Your task to perform on an android device: Open Amazon Image 0: 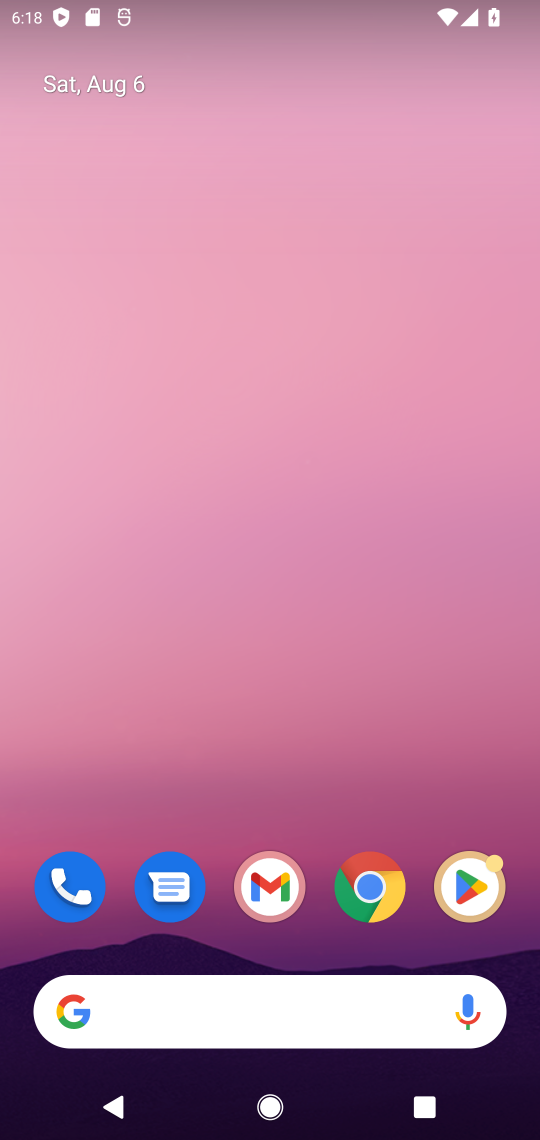
Step 0: click (181, 137)
Your task to perform on an android device: Open Amazon Image 1: 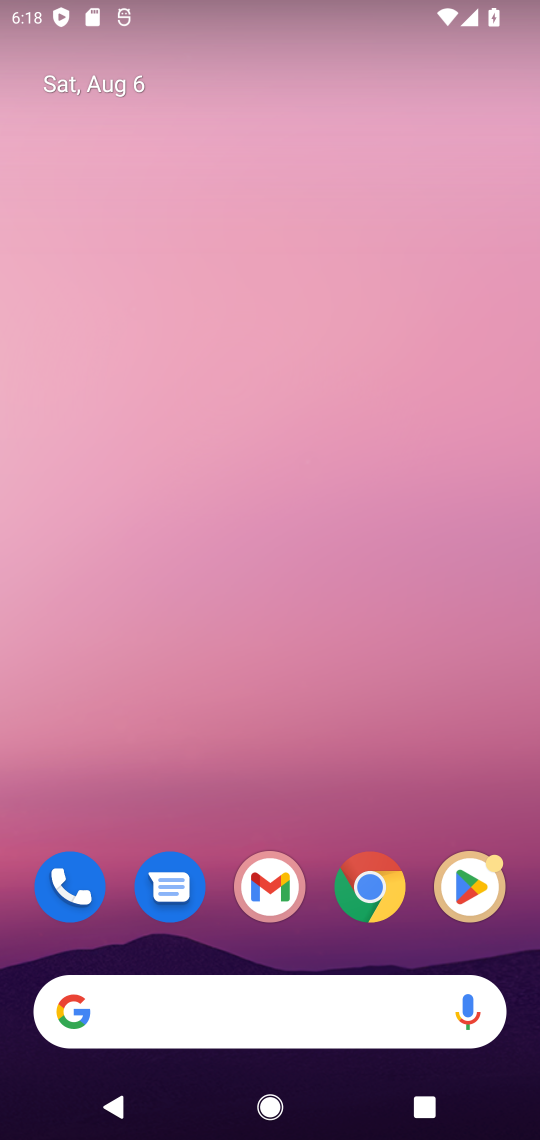
Step 1: click (188, 249)
Your task to perform on an android device: Open Amazon Image 2: 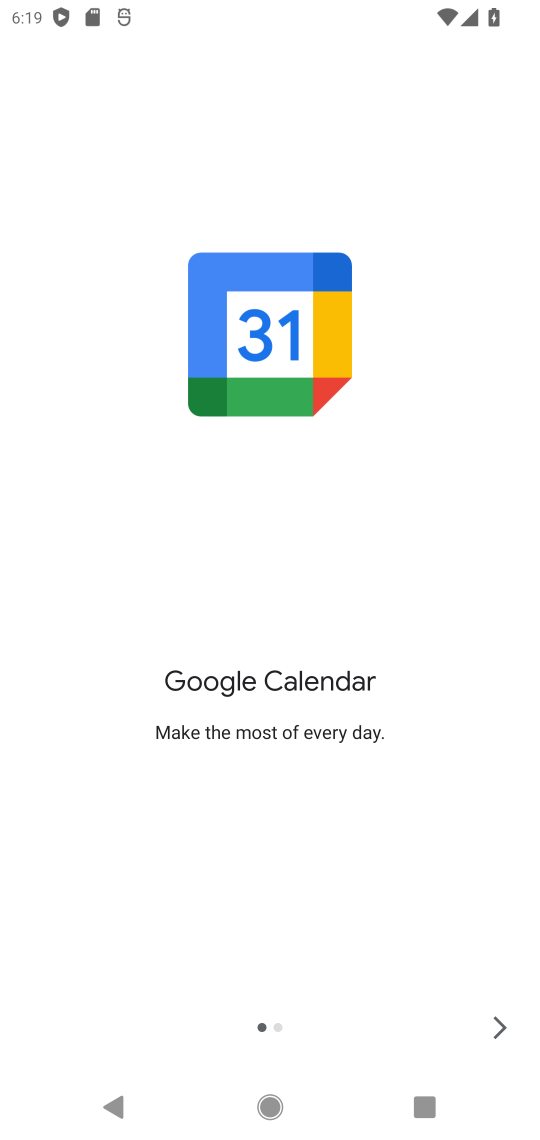
Step 2: press back button
Your task to perform on an android device: Open Amazon Image 3: 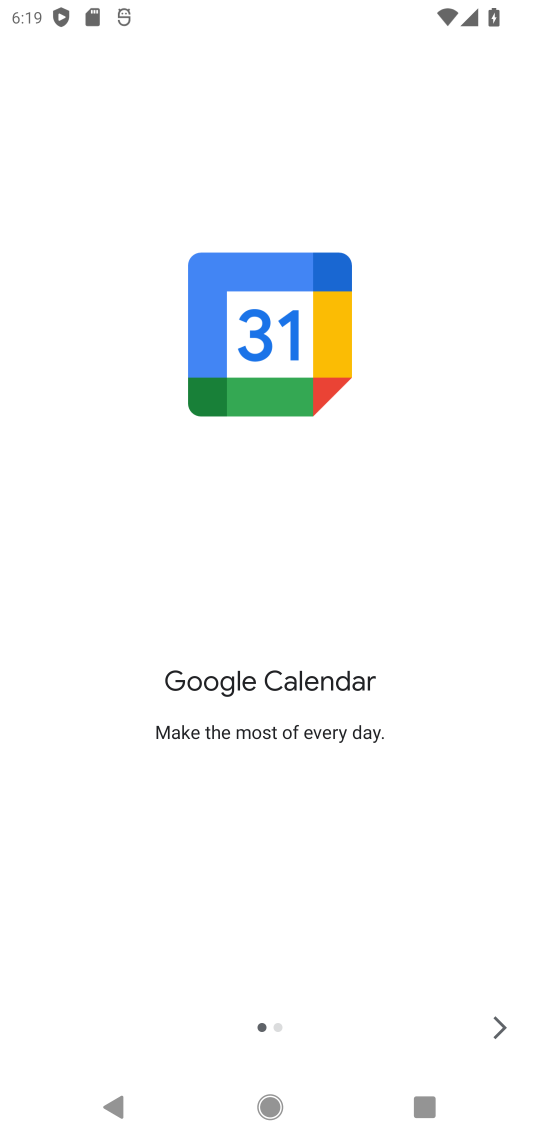
Step 3: press back button
Your task to perform on an android device: Open Amazon Image 4: 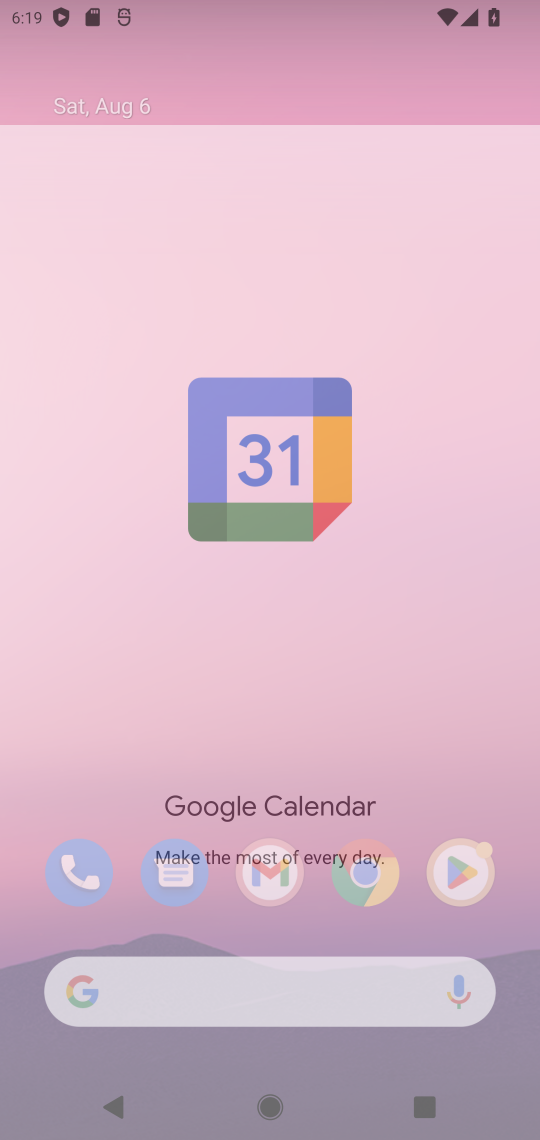
Step 4: press back button
Your task to perform on an android device: Open Amazon Image 5: 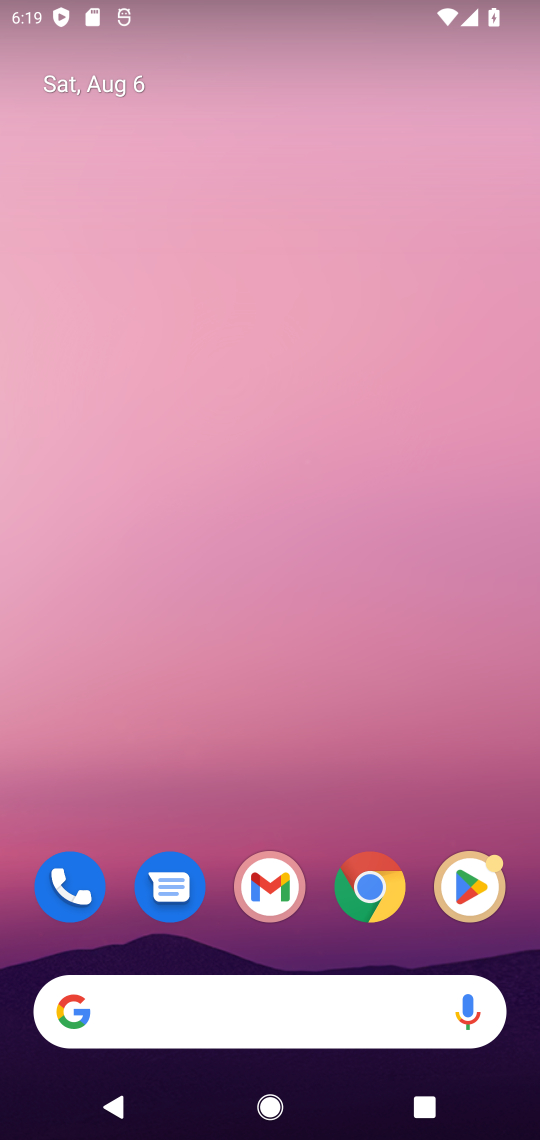
Step 5: drag from (388, 1086) to (274, 562)
Your task to perform on an android device: Open Amazon Image 6: 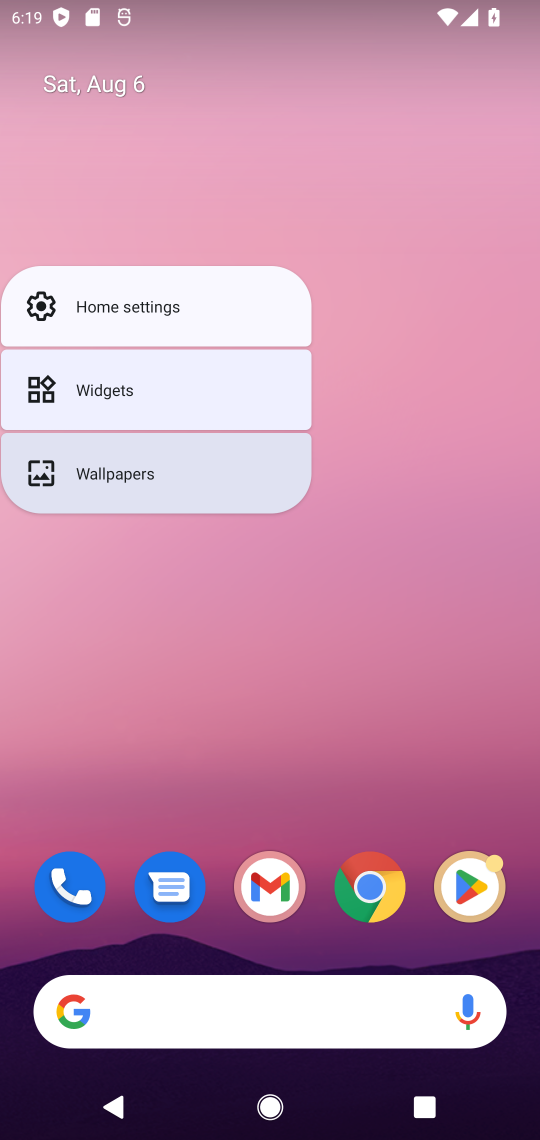
Step 6: click (340, 563)
Your task to perform on an android device: Open Amazon Image 7: 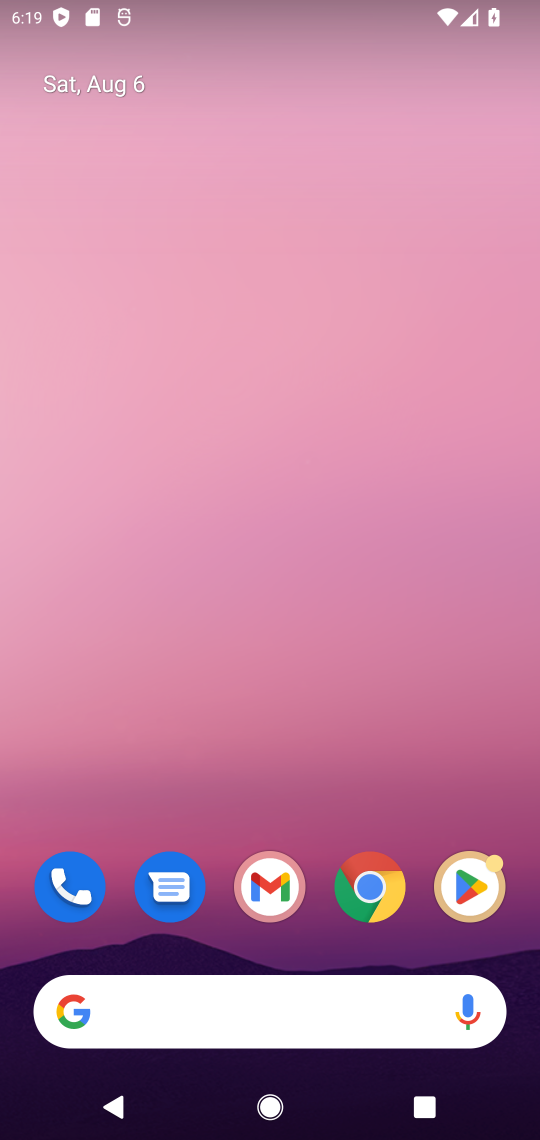
Step 7: drag from (217, 621) to (98, 232)
Your task to perform on an android device: Open Amazon Image 8: 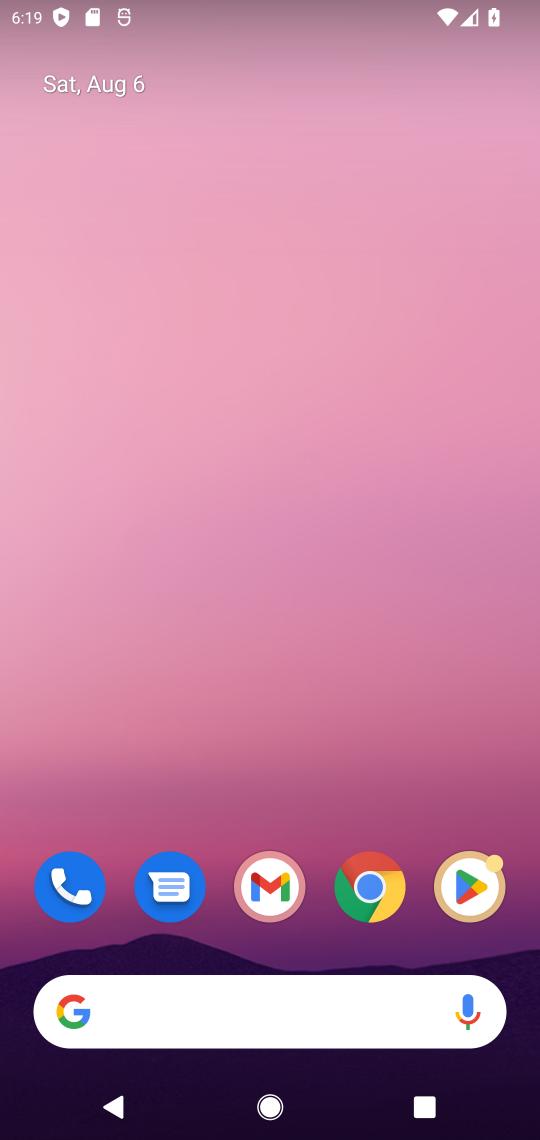
Step 8: drag from (269, 820) to (180, 567)
Your task to perform on an android device: Open Amazon Image 9: 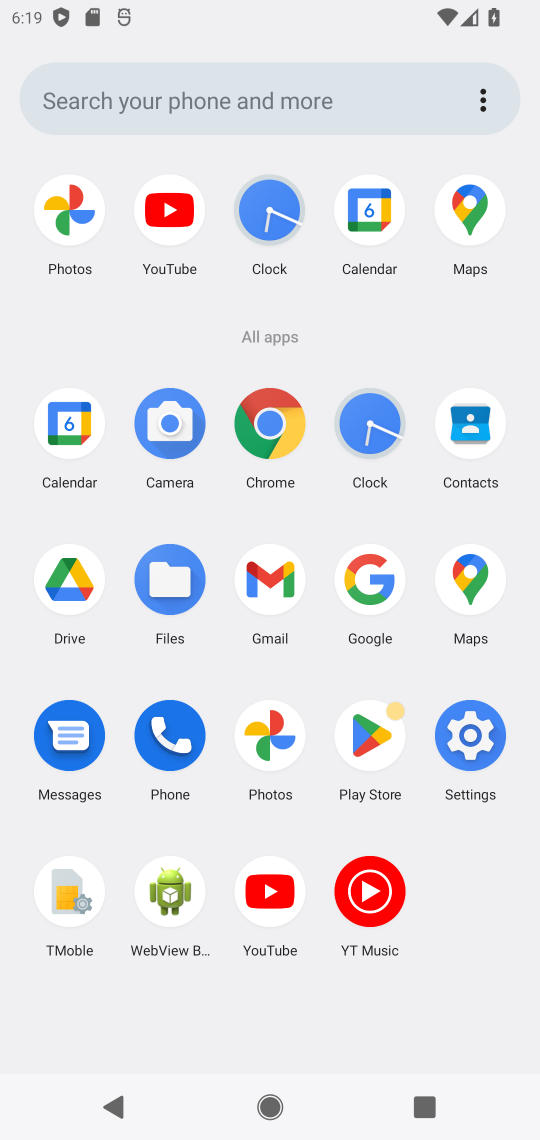
Step 9: click (261, 425)
Your task to perform on an android device: Open Amazon Image 10: 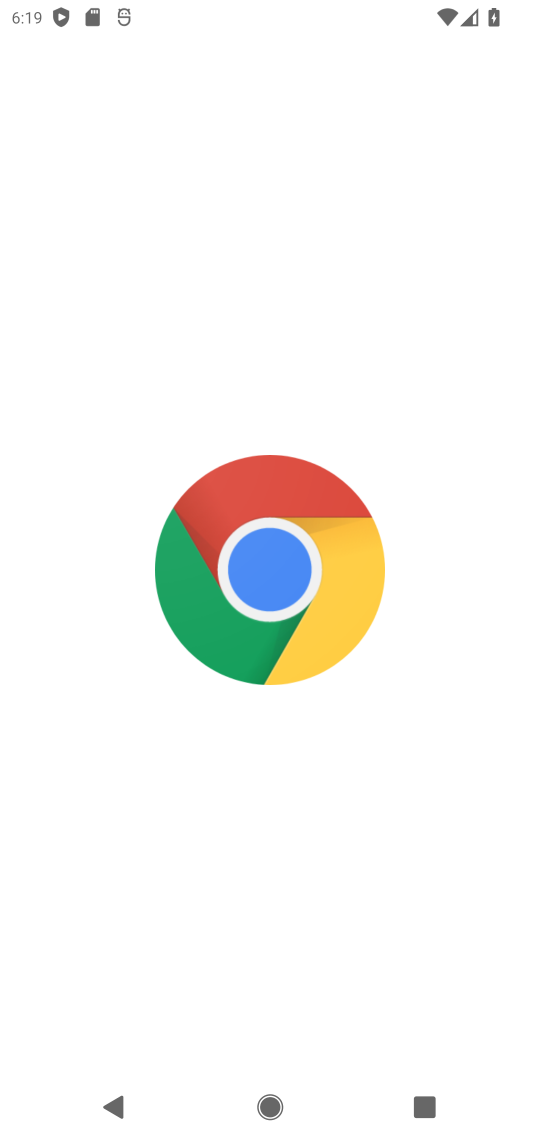
Step 10: click (262, 425)
Your task to perform on an android device: Open Amazon Image 11: 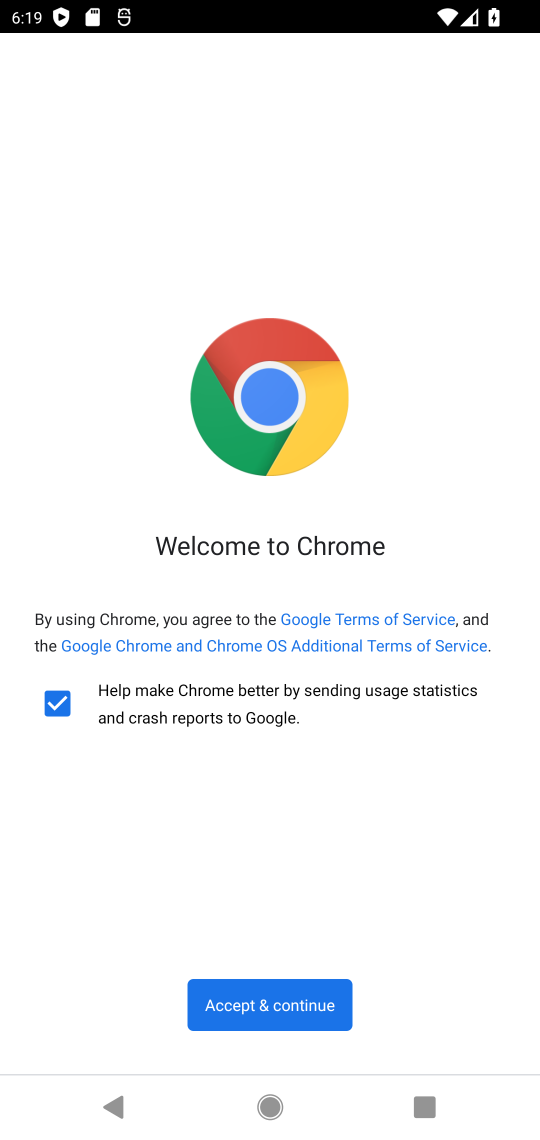
Step 11: click (273, 996)
Your task to perform on an android device: Open Amazon Image 12: 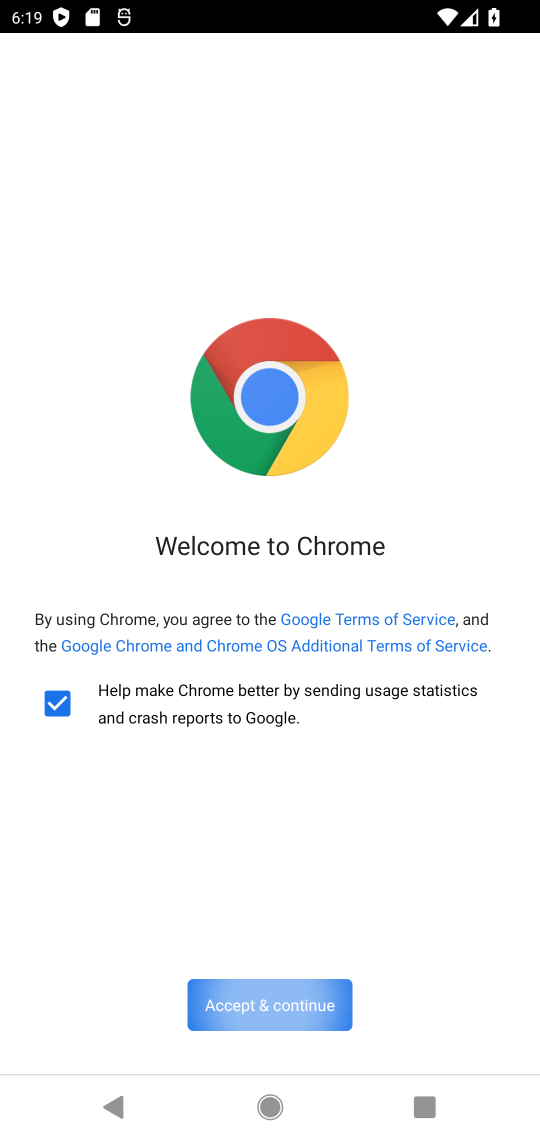
Step 12: click (276, 1000)
Your task to perform on an android device: Open Amazon Image 13: 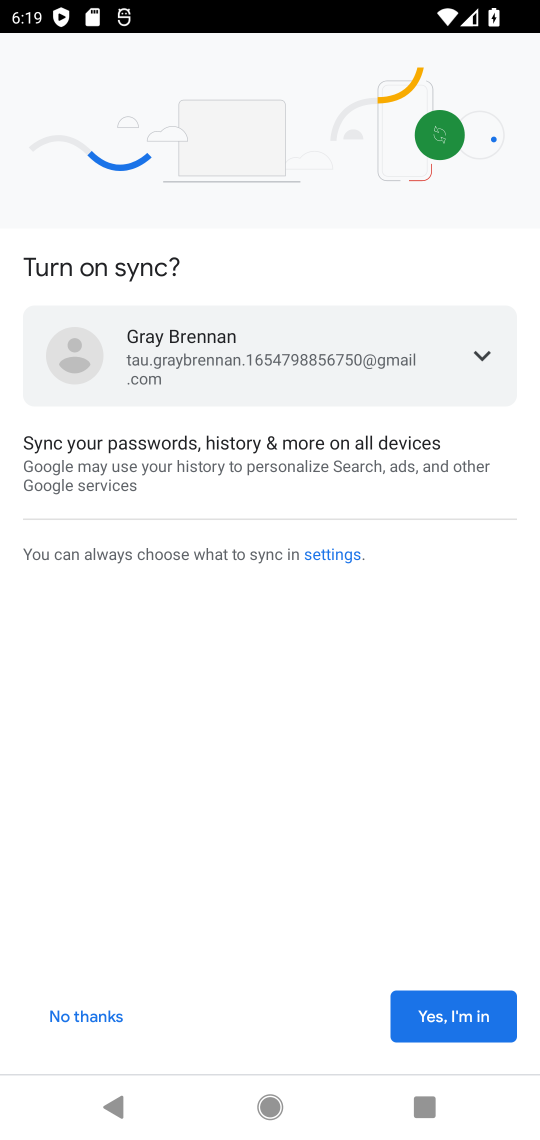
Step 13: click (276, 1000)
Your task to perform on an android device: Open Amazon Image 14: 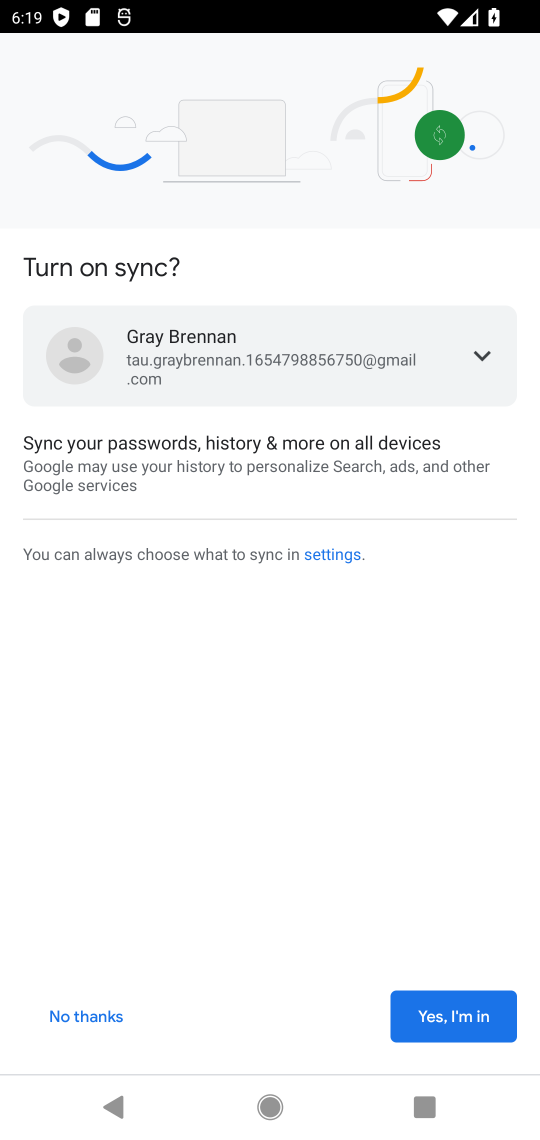
Step 14: click (98, 1007)
Your task to perform on an android device: Open Amazon Image 15: 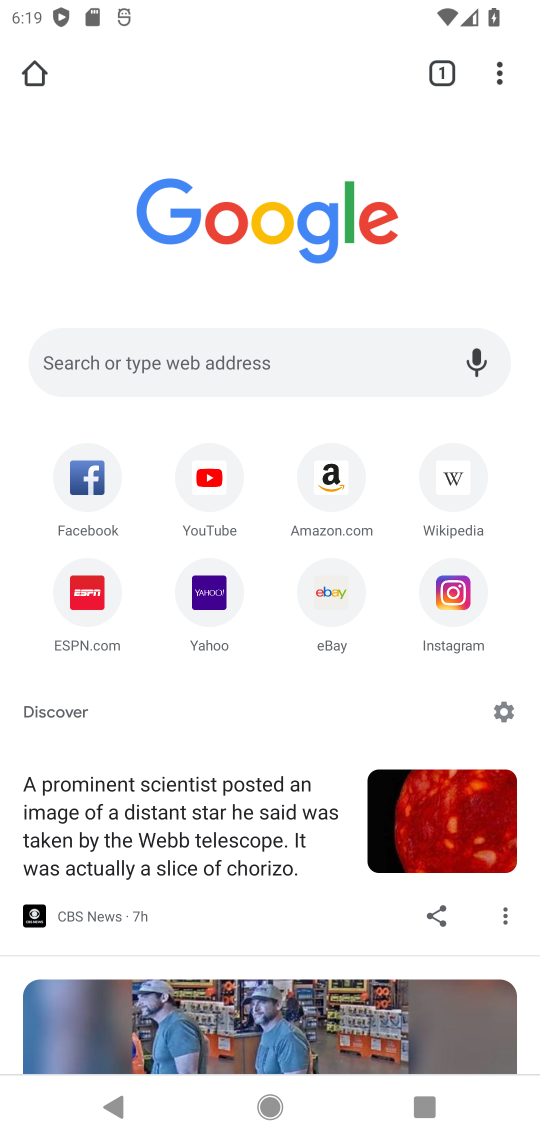
Step 15: click (336, 486)
Your task to perform on an android device: Open Amazon Image 16: 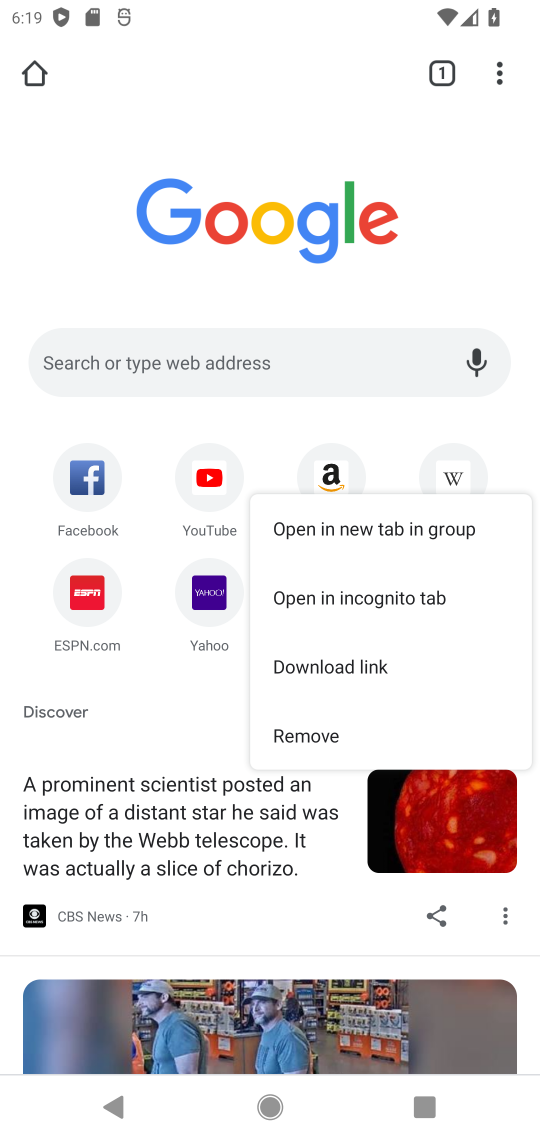
Step 16: click (334, 461)
Your task to perform on an android device: Open Amazon Image 17: 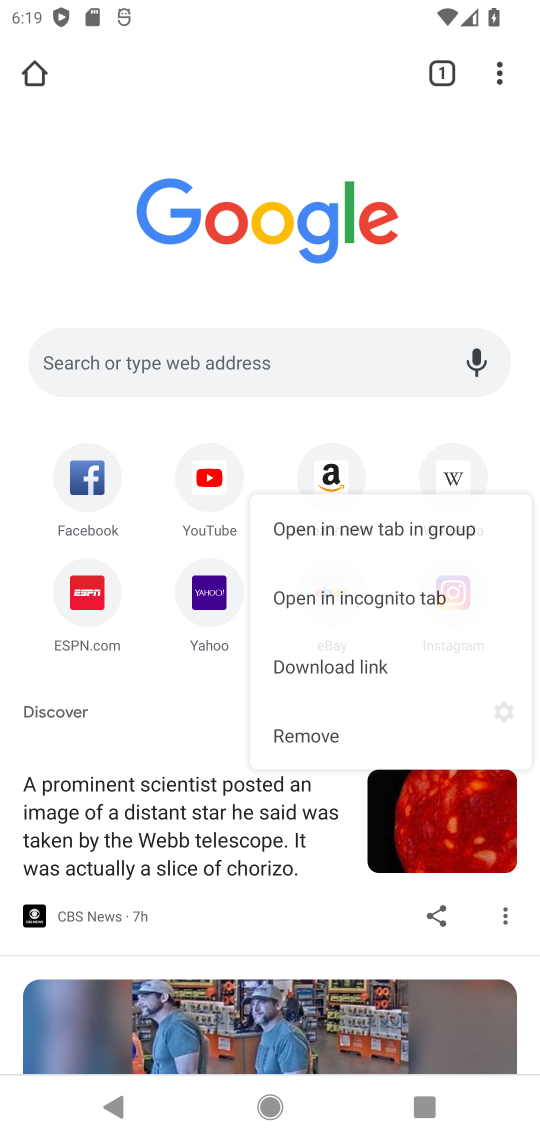
Step 17: click (334, 461)
Your task to perform on an android device: Open Amazon Image 18: 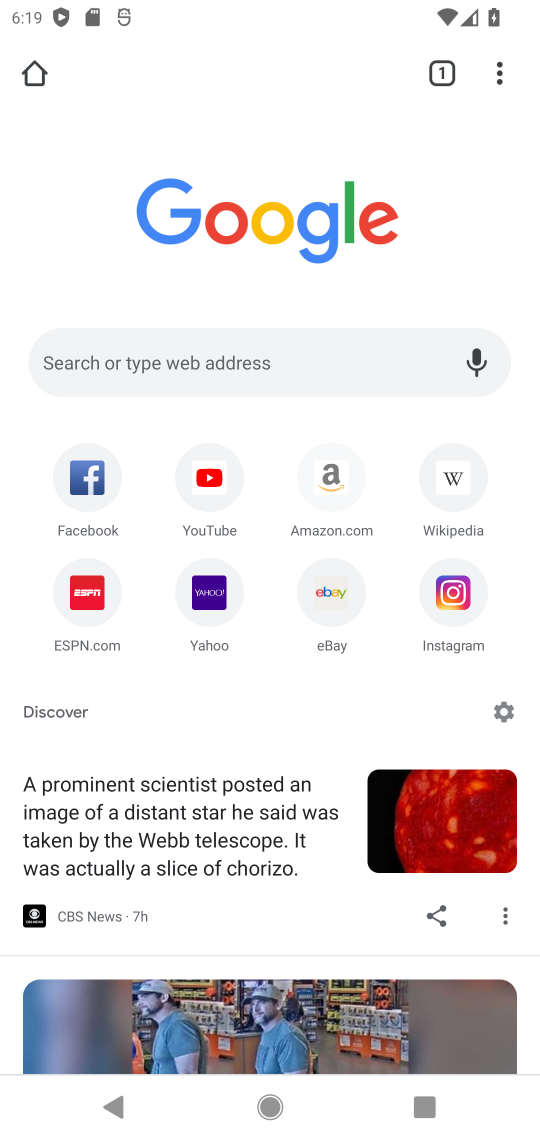
Step 18: click (334, 461)
Your task to perform on an android device: Open Amazon Image 19: 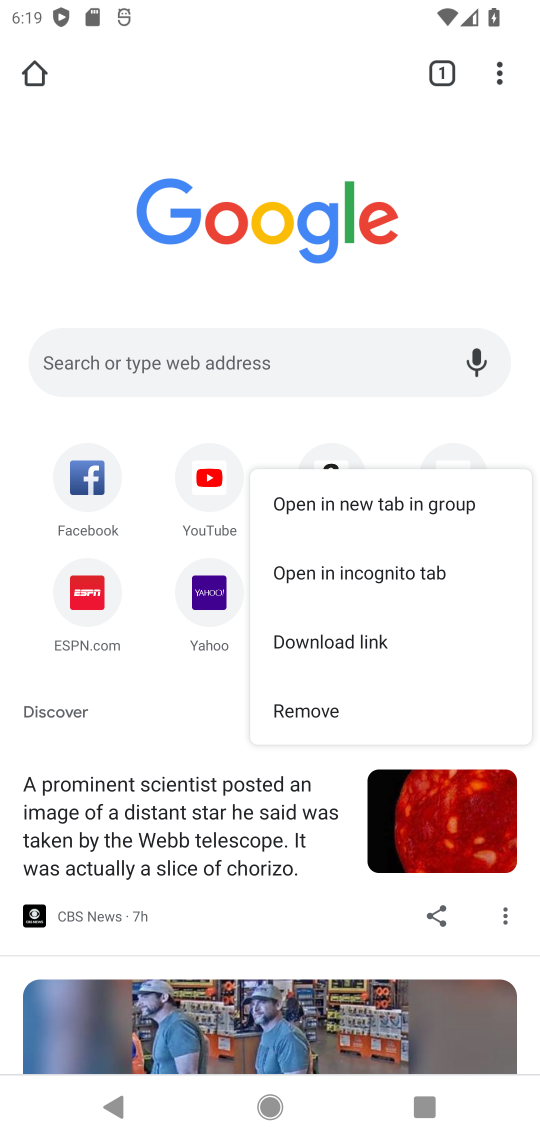
Step 19: click (334, 461)
Your task to perform on an android device: Open Amazon Image 20: 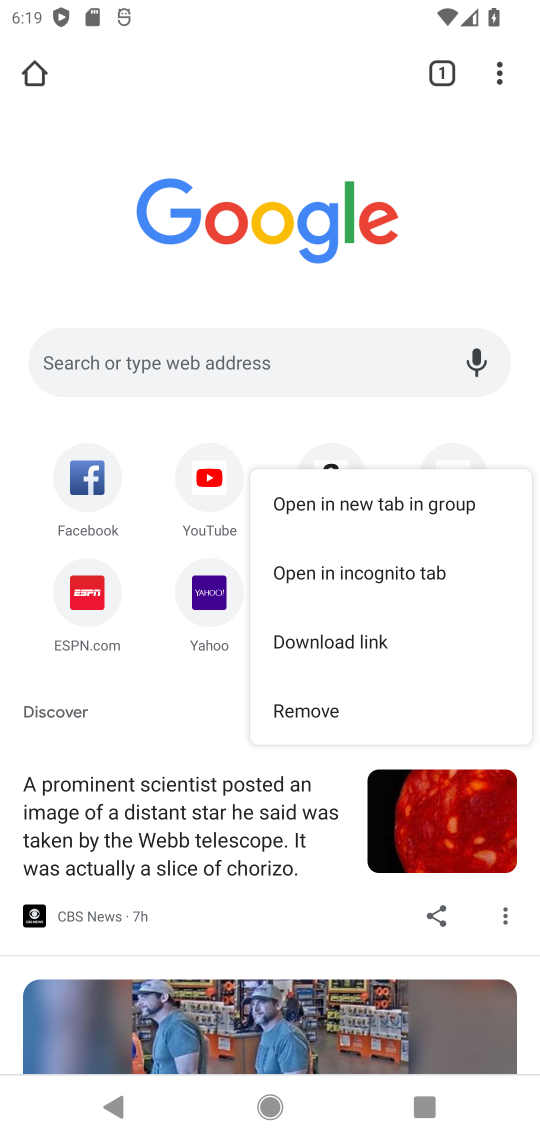
Step 20: click (340, 495)
Your task to perform on an android device: Open Amazon Image 21: 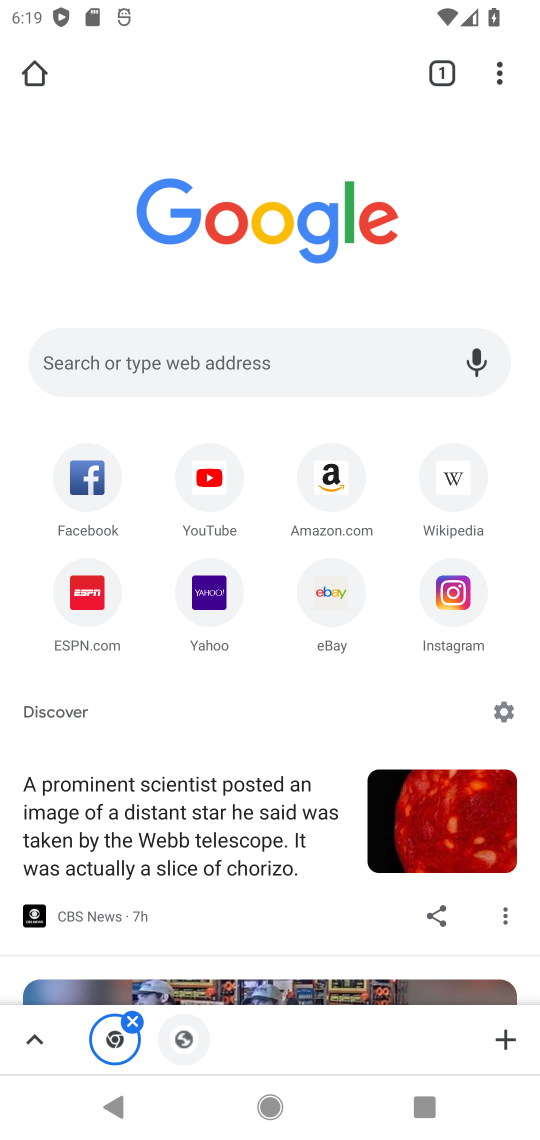
Step 21: task complete